Your task to perform on an android device: open app "PUBG MOBILE" (install if not already installed) and enter user name: "phenomenologically@gmail.com" and password: "artillery" Image 0: 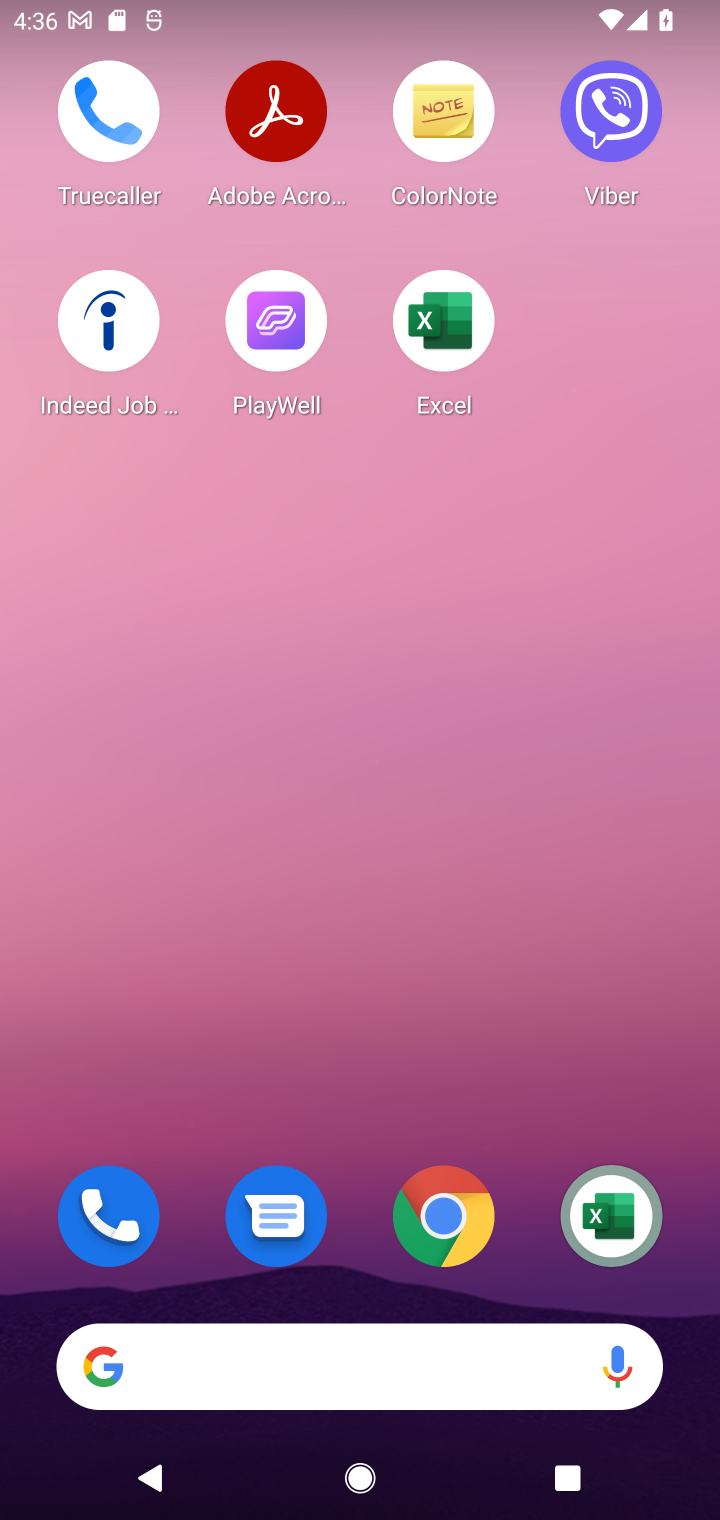
Step 0: drag from (523, 1277) to (548, 293)
Your task to perform on an android device: open app "PUBG MOBILE" (install if not already installed) and enter user name: "phenomenologically@gmail.com" and password: "artillery" Image 1: 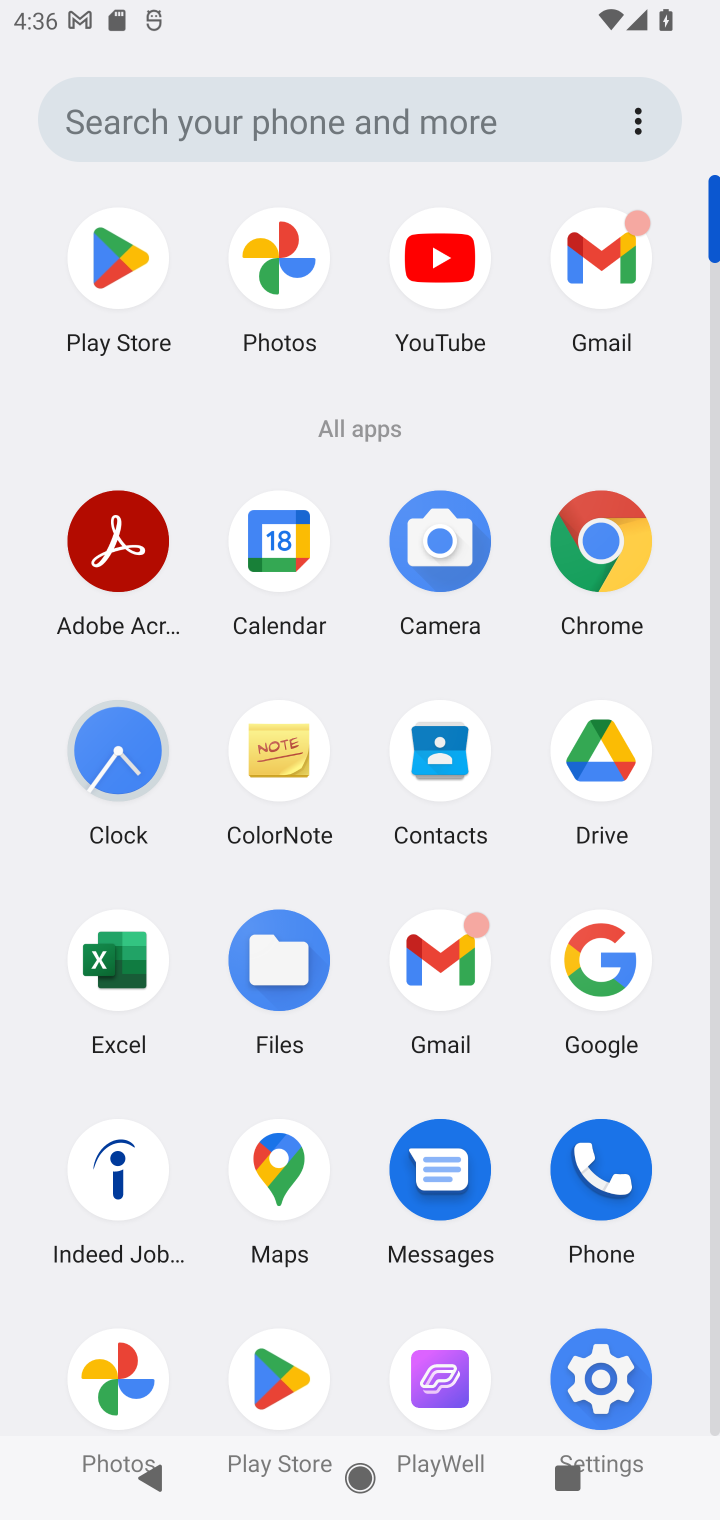
Step 1: click (279, 1386)
Your task to perform on an android device: open app "PUBG MOBILE" (install if not already installed) and enter user name: "phenomenologically@gmail.com" and password: "artillery" Image 2: 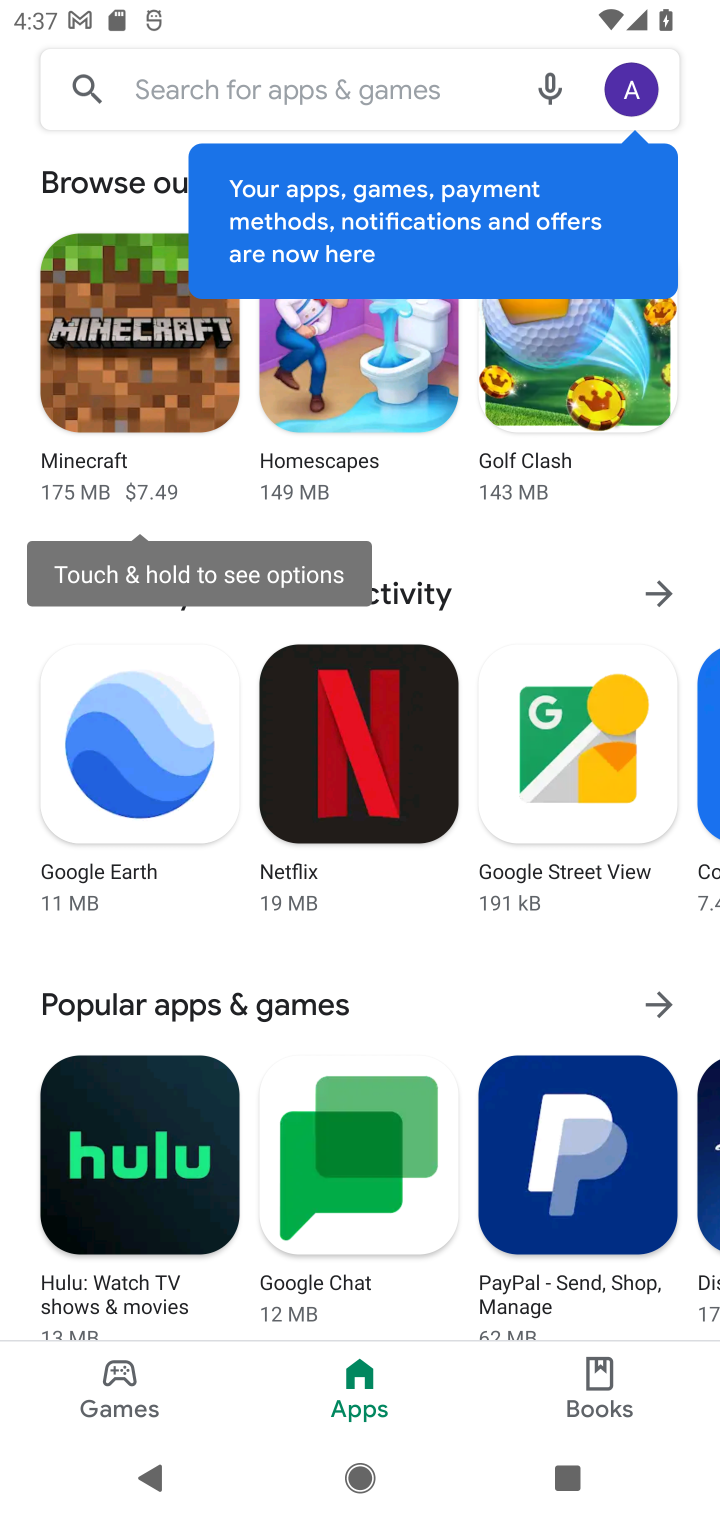
Step 2: click (280, 80)
Your task to perform on an android device: open app "PUBG MOBILE" (install if not already installed) and enter user name: "phenomenologically@gmail.com" and password: "artillery" Image 3: 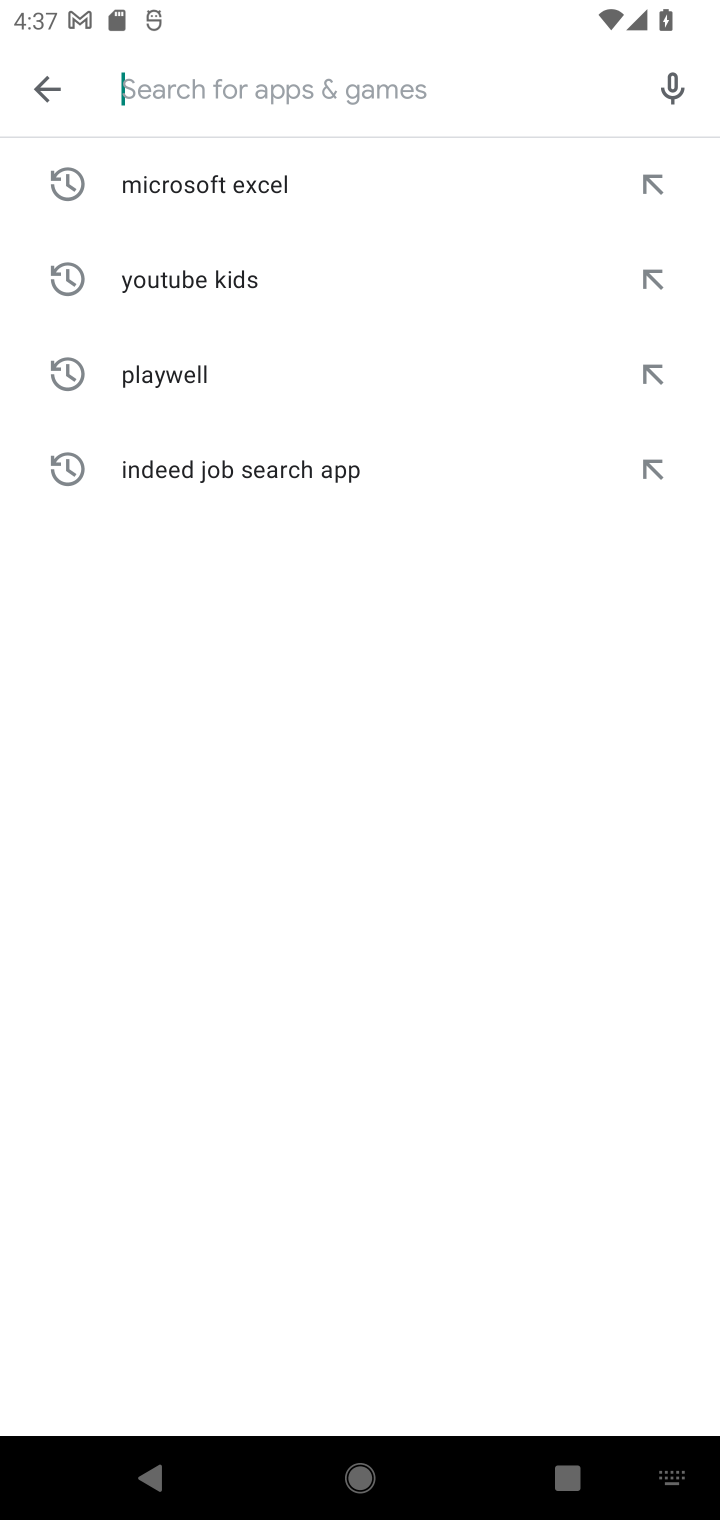
Step 3: type "PUBG MOBILe"
Your task to perform on an android device: open app "PUBG MOBILE" (install if not already installed) and enter user name: "phenomenologically@gmail.com" and password: "artillery" Image 4: 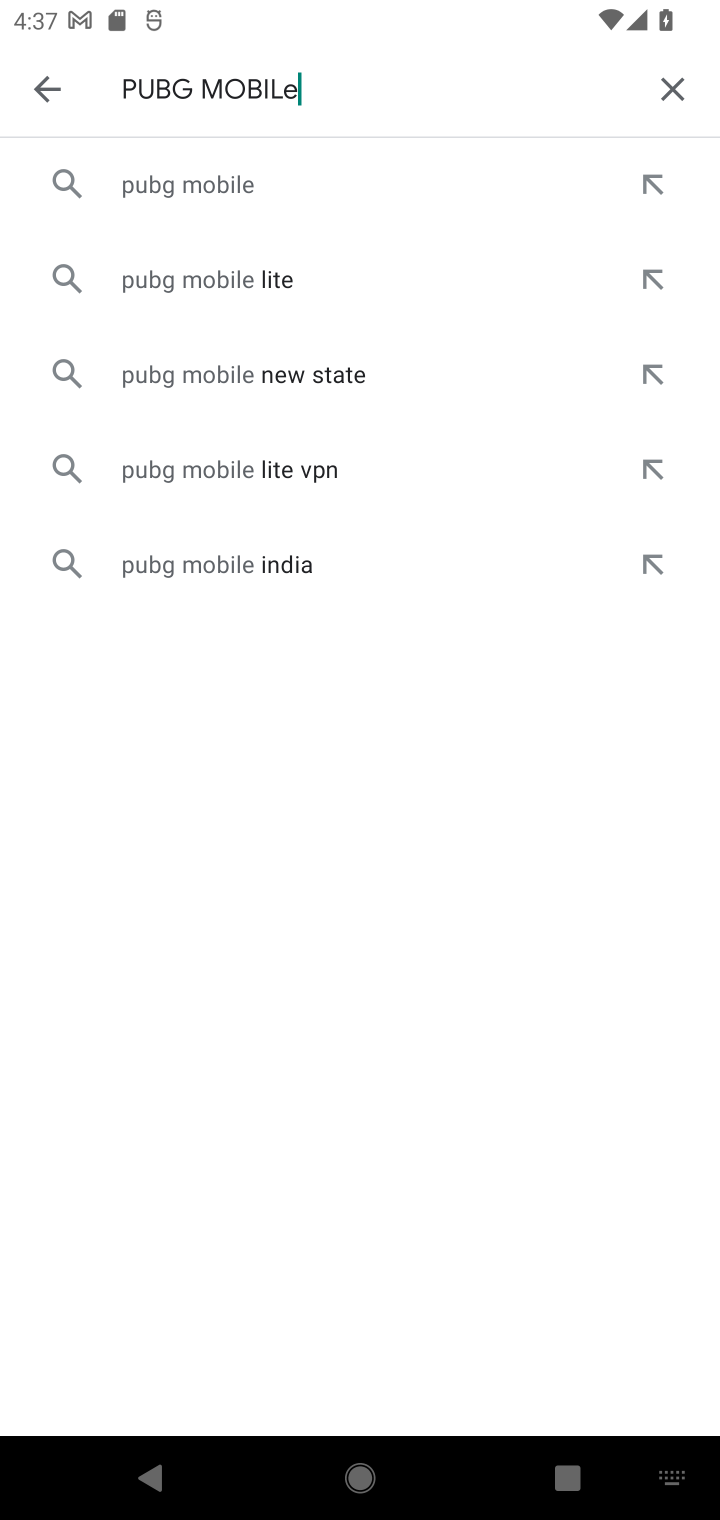
Step 4: click (205, 164)
Your task to perform on an android device: open app "PUBG MOBILE" (install if not already installed) and enter user name: "phenomenologically@gmail.com" and password: "artillery" Image 5: 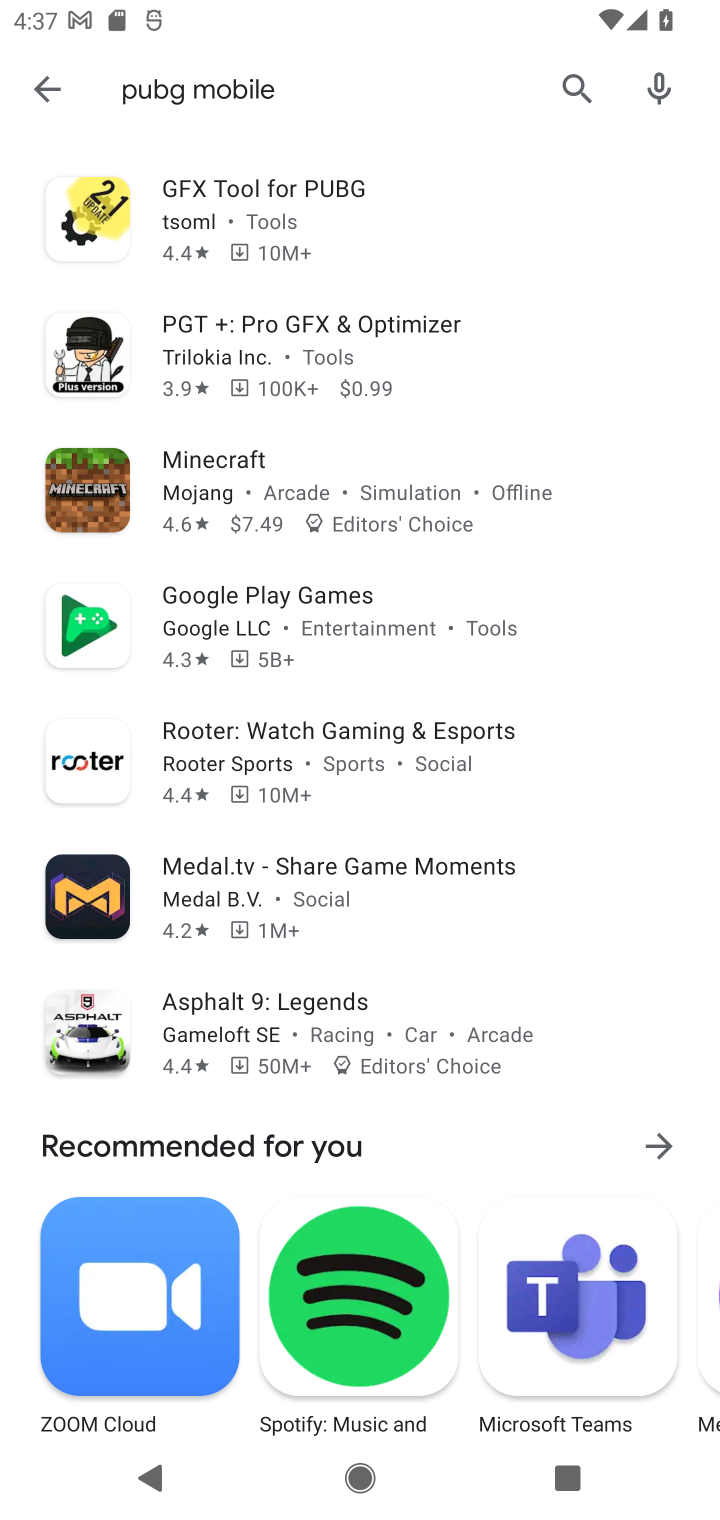
Step 5: drag from (454, 1107) to (490, 525)
Your task to perform on an android device: open app "PUBG MOBILE" (install if not already installed) and enter user name: "phenomenologically@gmail.com" and password: "artillery" Image 6: 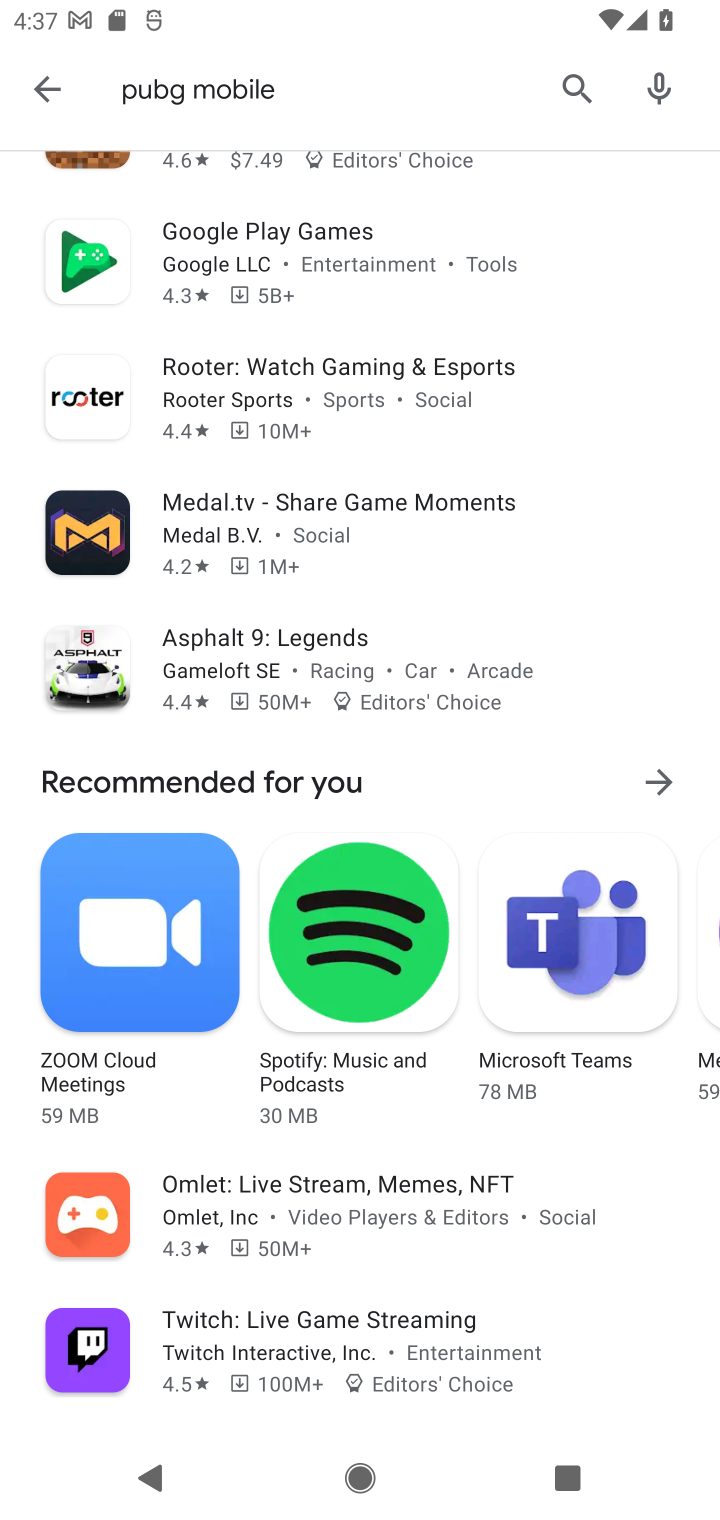
Step 6: drag from (445, 1153) to (542, 337)
Your task to perform on an android device: open app "PUBG MOBILE" (install if not already installed) and enter user name: "phenomenologically@gmail.com" and password: "artillery" Image 7: 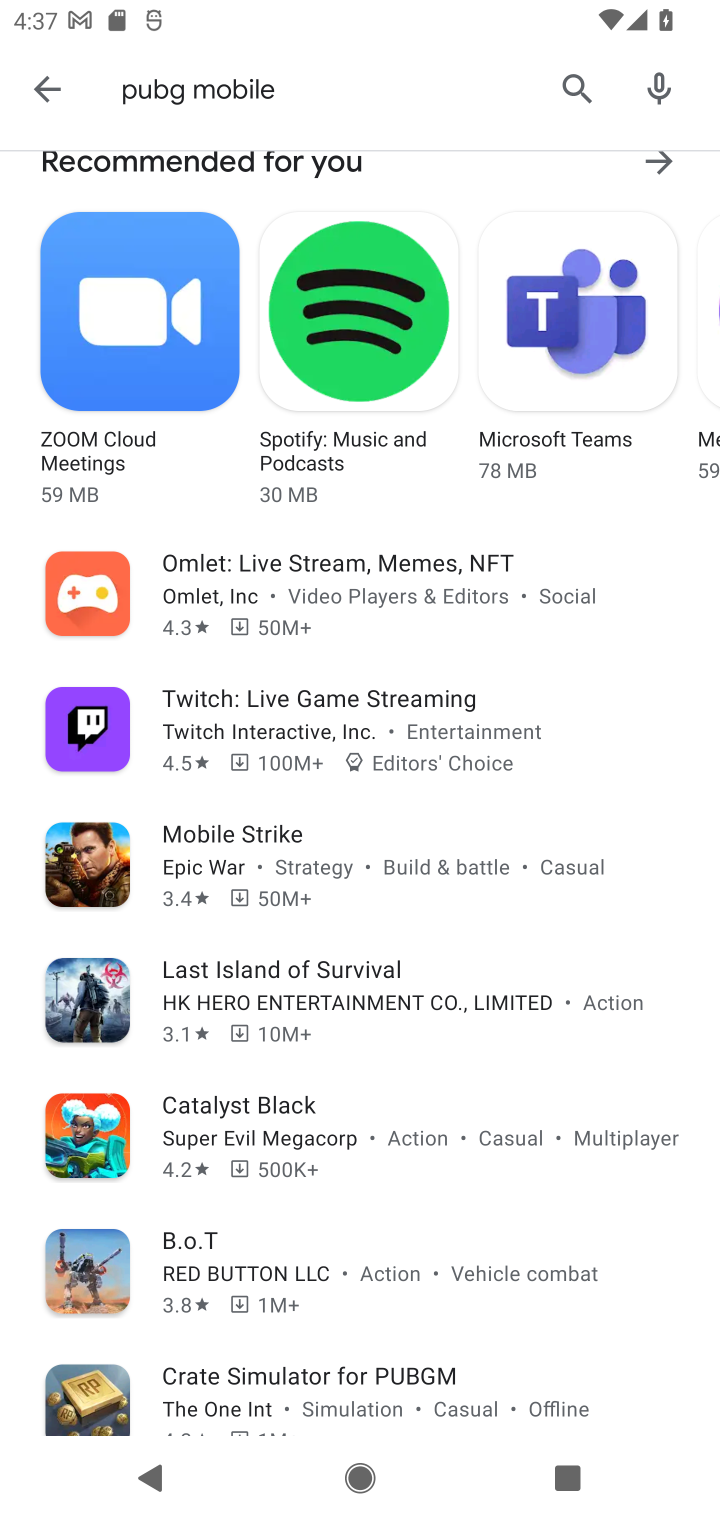
Step 7: drag from (538, 1218) to (589, 570)
Your task to perform on an android device: open app "PUBG MOBILE" (install if not already installed) and enter user name: "phenomenologically@gmail.com" and password: "artillery" Image 8: 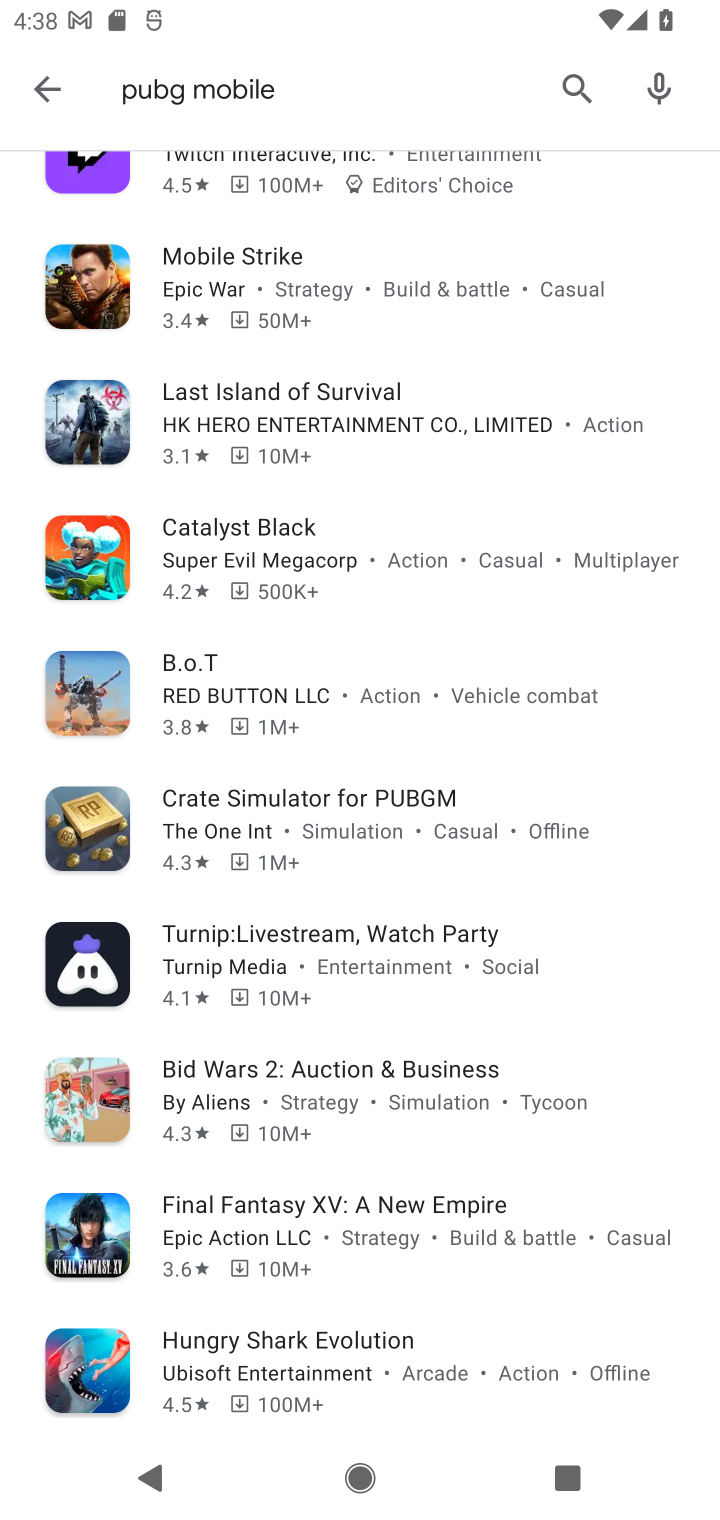
Step 8: drag from (529, 1292) to (571, 465)
Your task to perform on an android device: open app "PUBG MOBILE" (install if not already installed) and enter user name: "phenomenologically@gmail.com" and password: "artillery" Image 9: 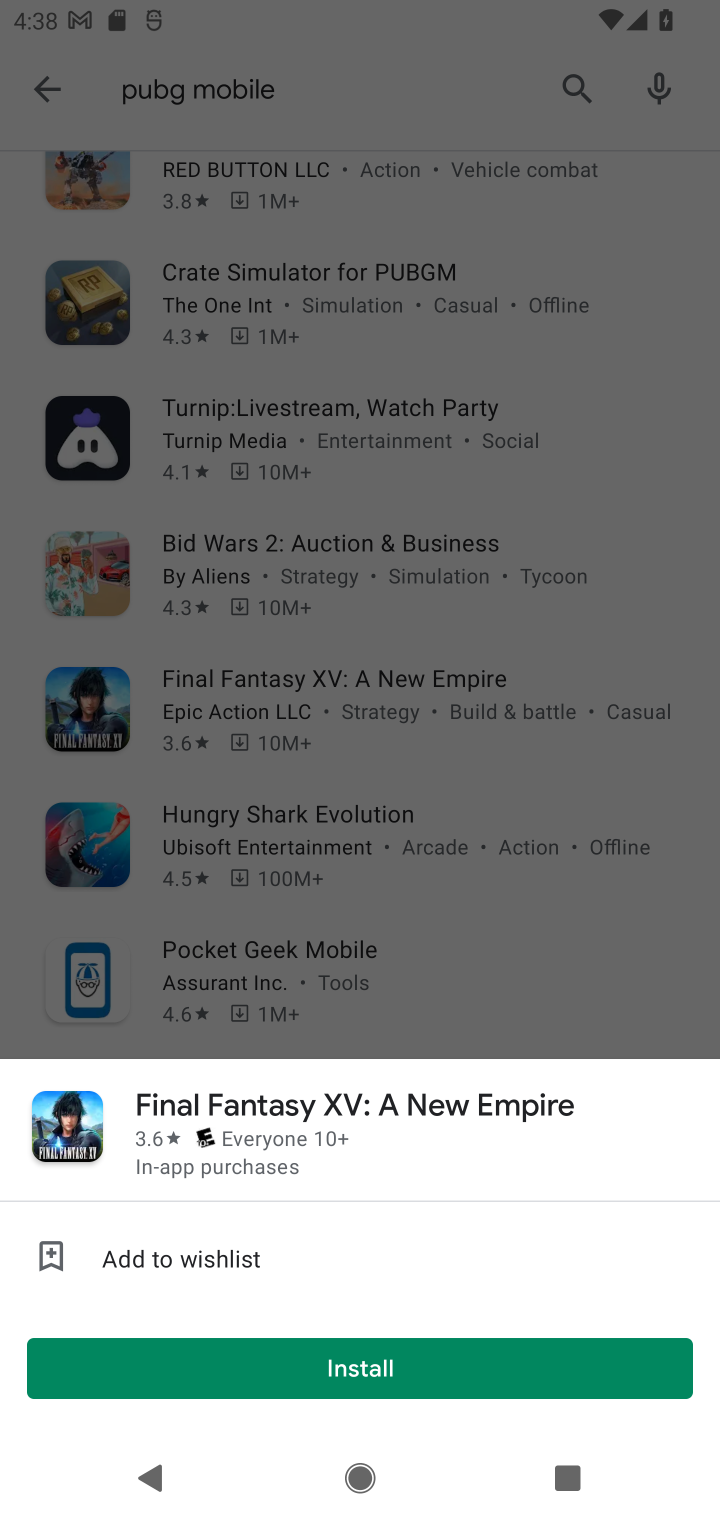
Step 9: click (557, 917)
Your task to perform on an android device: open app "PUBG MOBILE" (install if not already installed) and enter user name: "phenomenologically@gmail.com" and password: "artillery" Image 10: 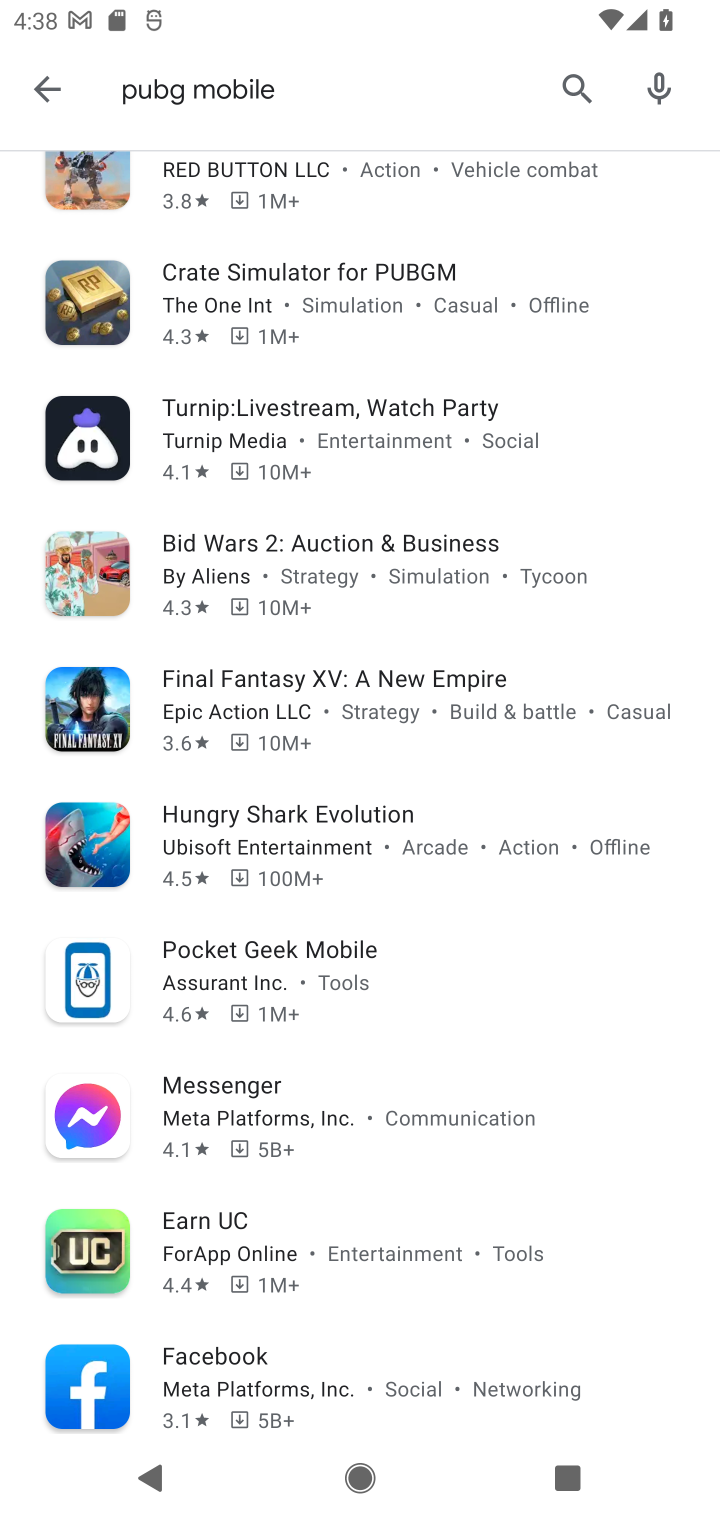
Step 10: drag from (582, 1189) to (587, 535)
Your task to perform on an android device: open app "PUBG MOBILE" (install if not already installed) and enter user name: "phenomenologically@gmail.com" and password: "artillery" Image 11: 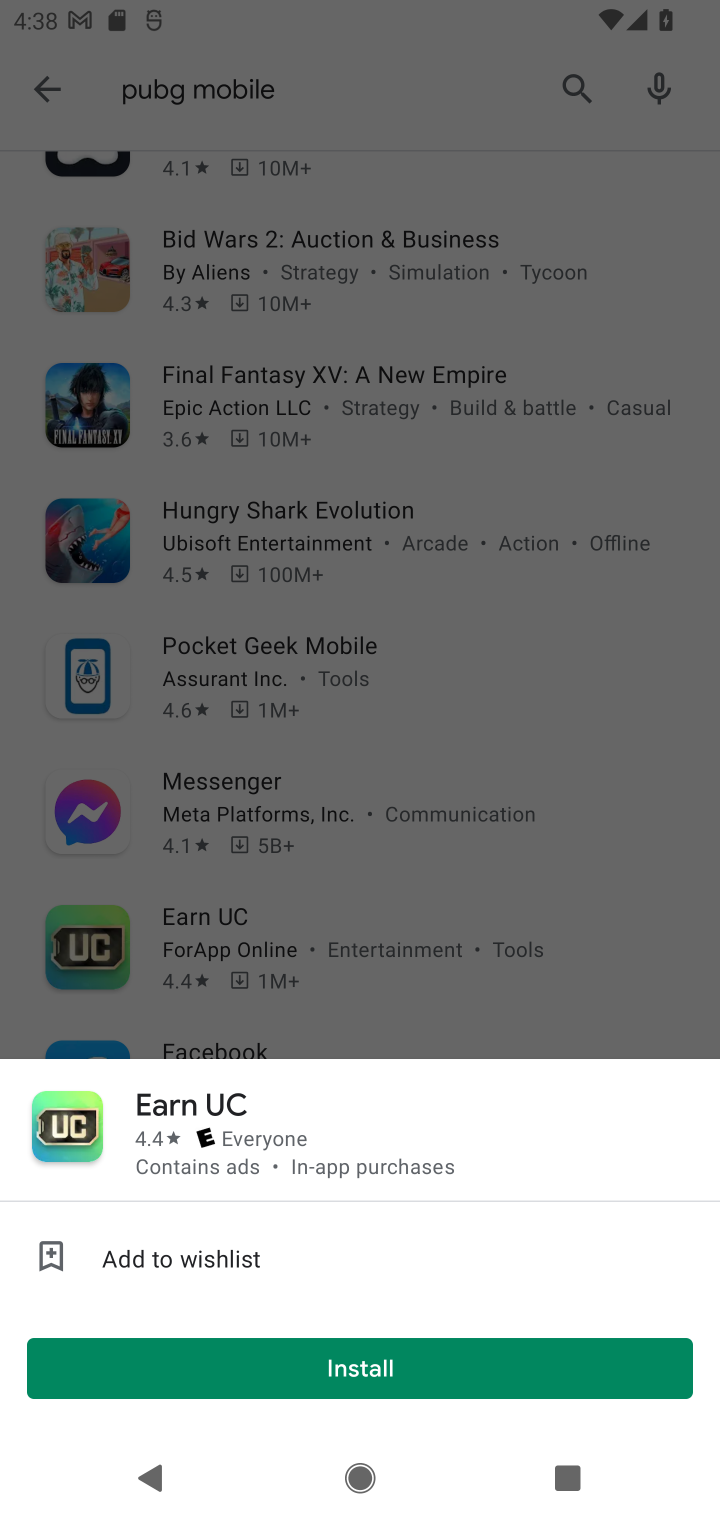
Step 11: click (588, 994)
Your task to perform on an android device: open app "PUBG MOBILE" (install if not already installed) and enter user name: "phenomenologically@gmail.com" and password: "artillery" Image 12: 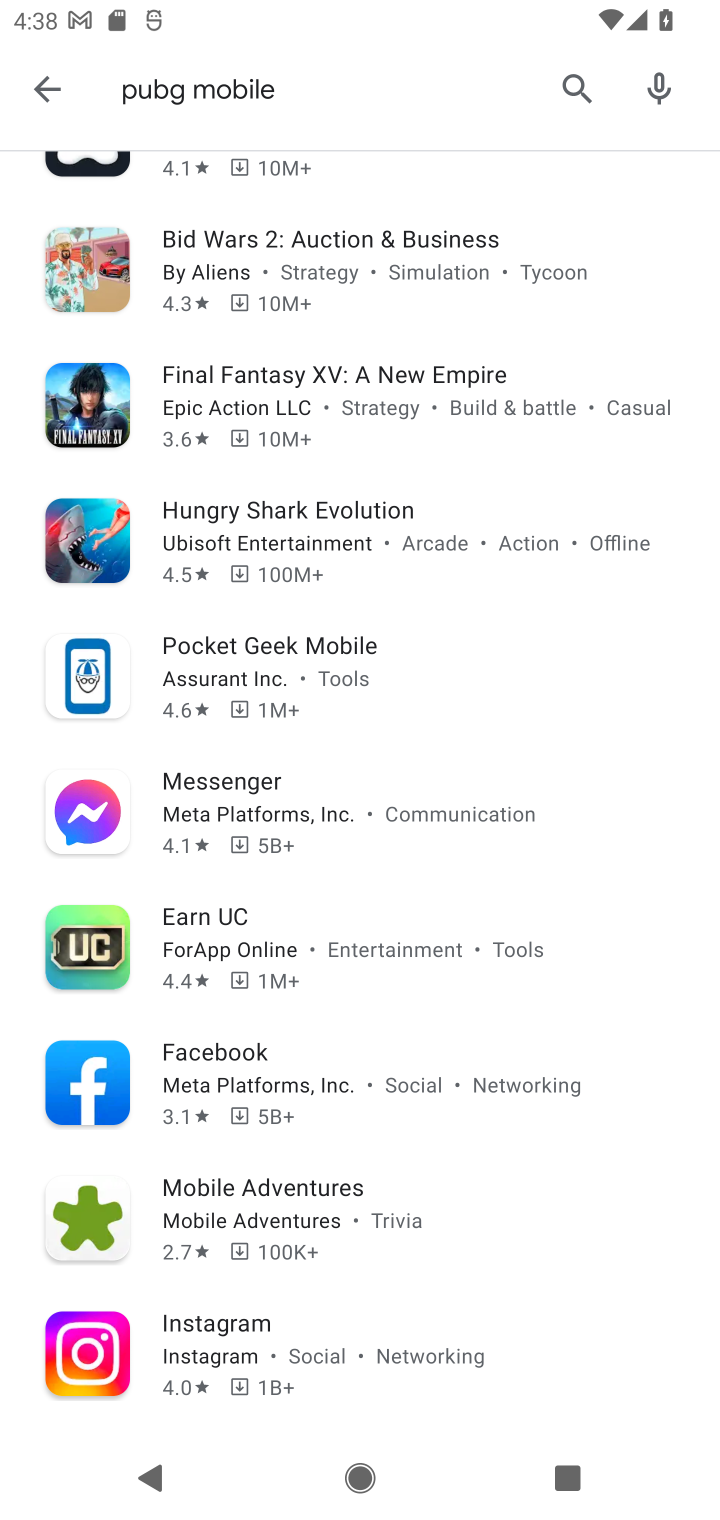
Step 12: task complete